Your task to perform on an android device: check android version Image 0: 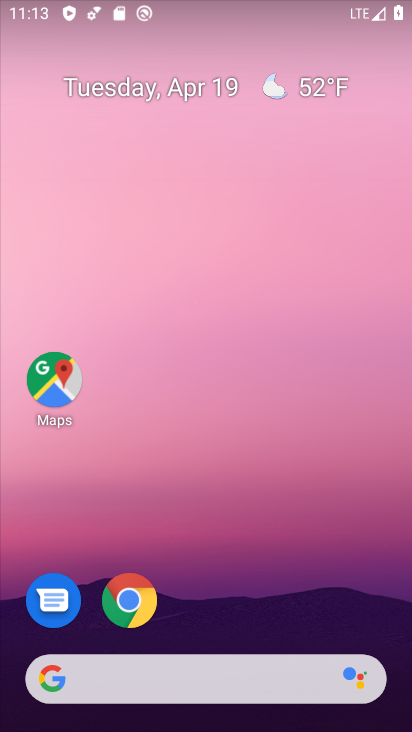
Step 0: drag from (214, 537) to (208, 12)
Your task to perform on an android device: check android version Image 1: 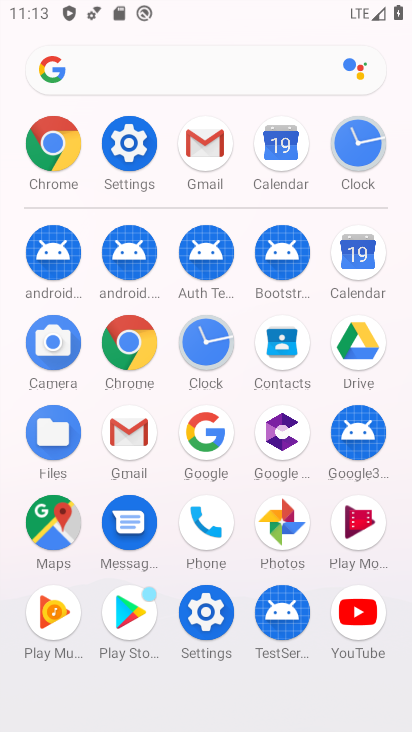
Step 1: click (195, 620)
Your task to perform on an android device: check android version Image 2: 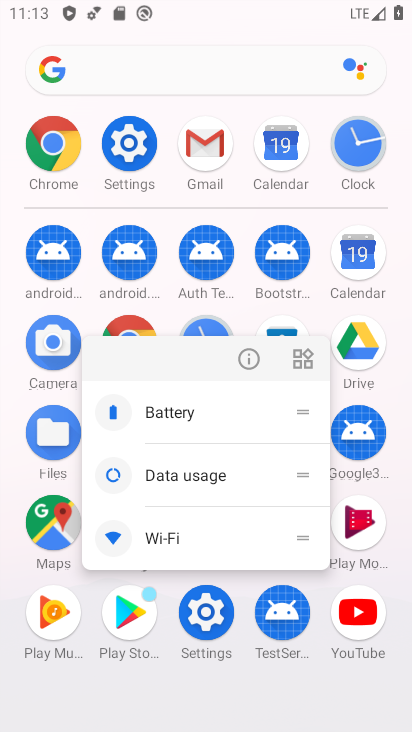
Step 2: click (221, 606)
Your task to perform on an android device: check android version Image 3: 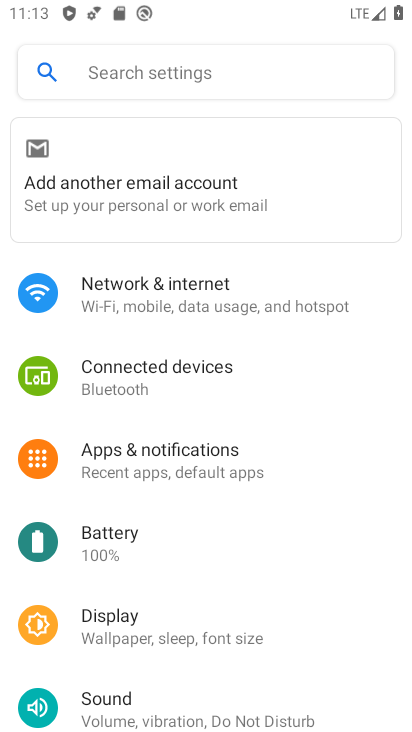
Step 3: drag from (155, 588) to (147, 67)
Your task to perform on an android device: check android version Image 4: 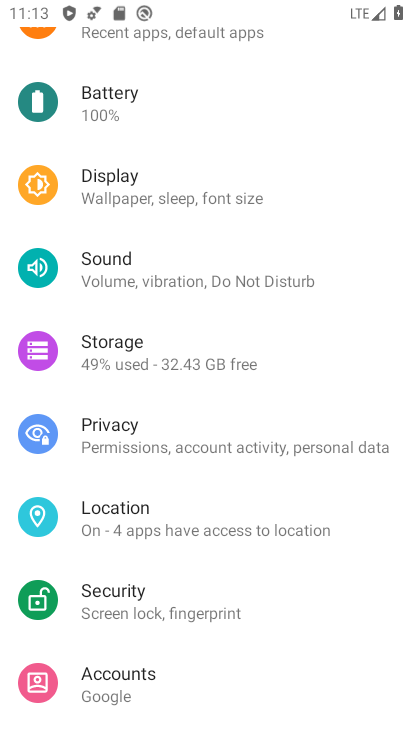
Step 4: drag from (188, 624) to (217, 121)
Your task to perform on an android device: check android version Image 5: 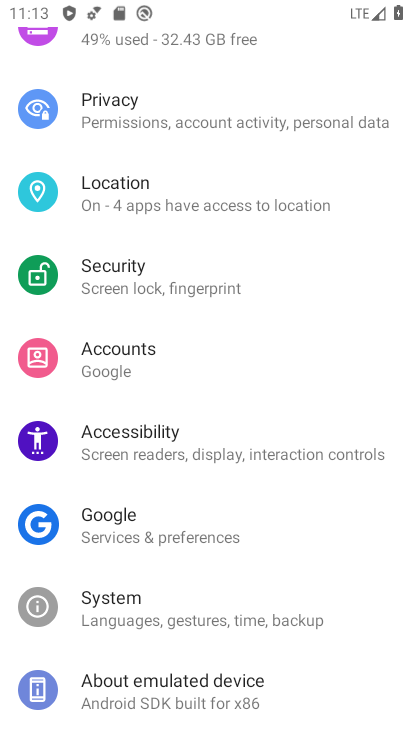
Step 5: click (176, 666)
Your task to perform on an android device: check android version Image 6: 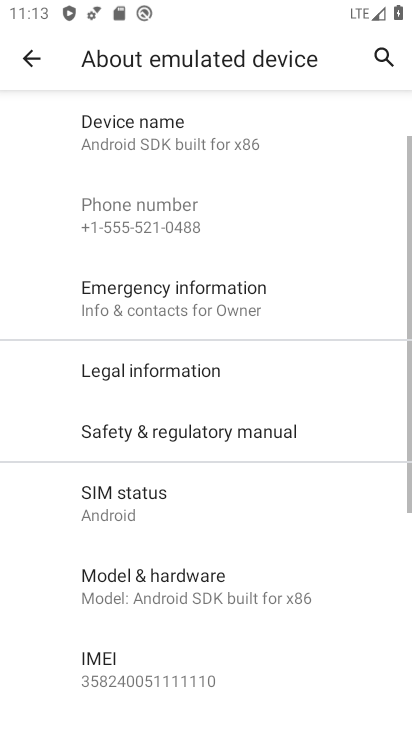
Step 6: drag from (186, 593) to (209, 59)
Your task to perform on an android device: check android version Image 7: 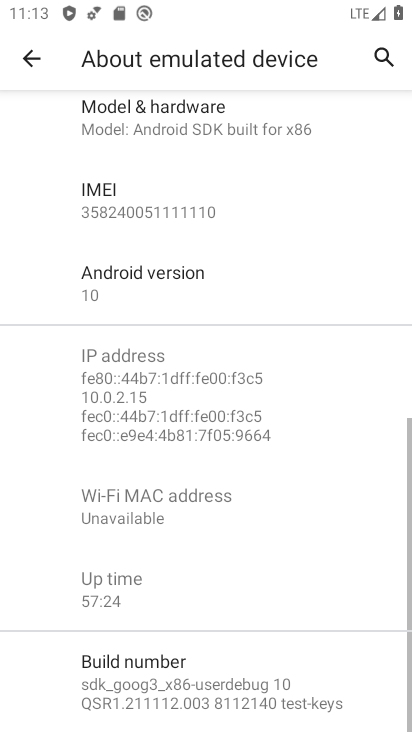
Step 7: click (173, 273)
Your task to perform on an android device: check android version Image 8: 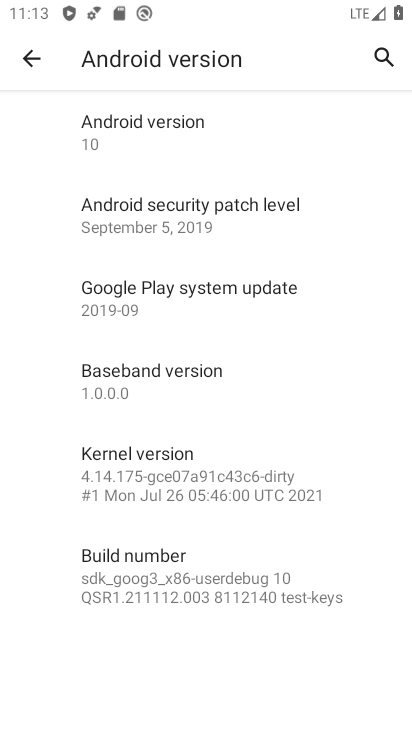
Step 8: task complete